Your task to perform on an android device: Go to Android settings Image 0: 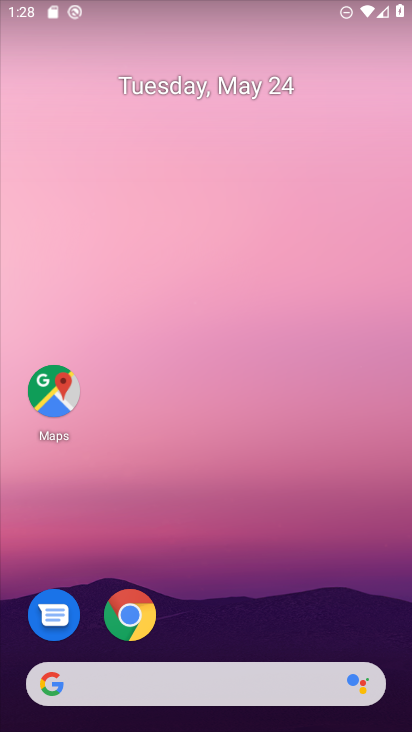
Step 0: drag from (181, 577) to (218, 22)
Your task to perform on an android device: Go to Android settings Image 1: 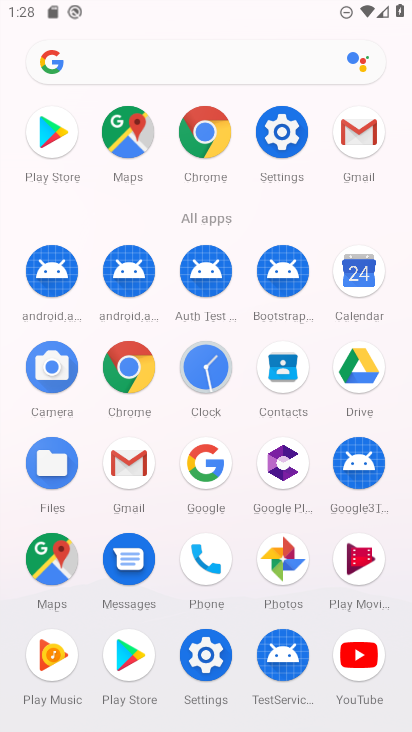
Step 1: click (279, 123)
Your task to perform on an android device: Go to Android settings Image 2: 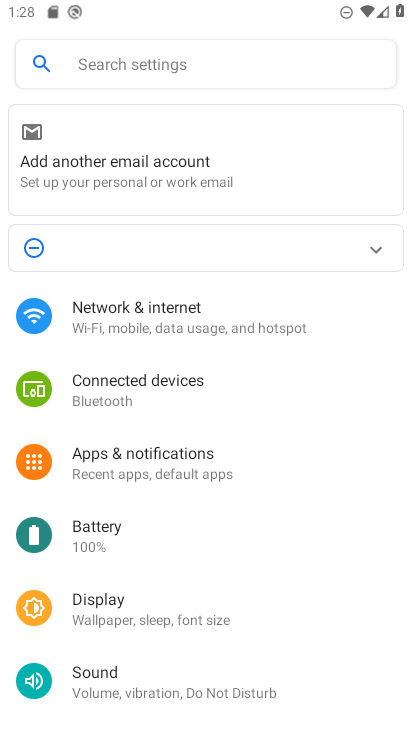
Step 2: drag from (224, 652) to (241, 44)
Your task to perform on an android device: Go to Android settings Image 3: 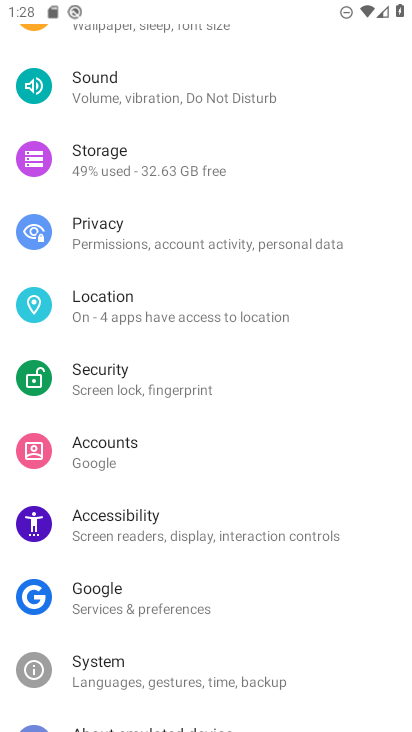
Step 3: drag from (113, 680) to (261, 46)
Your task to perform on an android device: Go to Android settings Image 4: 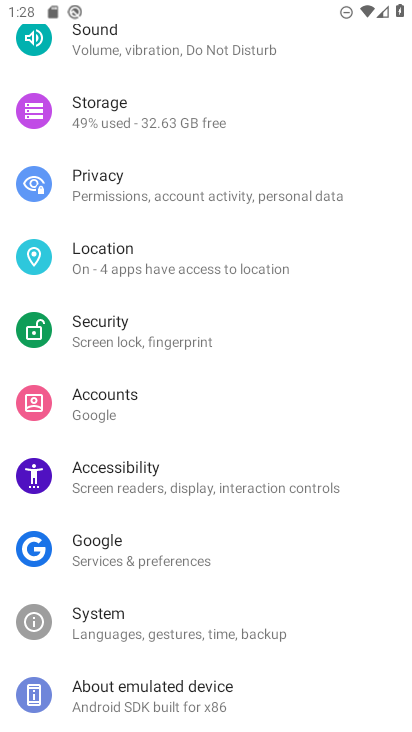
Step 4: click (104, 686)
Your task to perform on an android device: Go to Android settings Image 5: 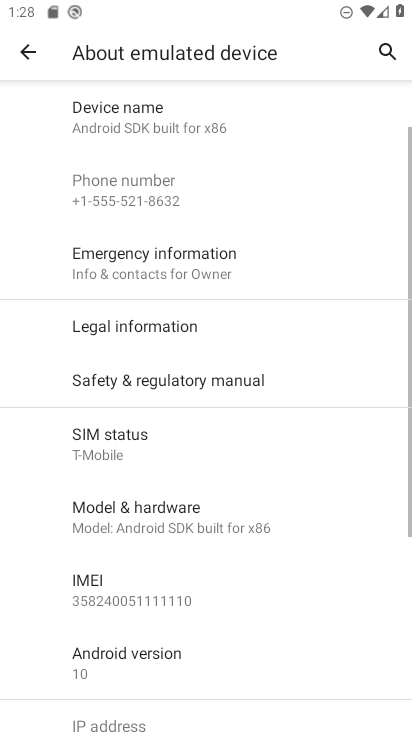
Step 5: click (138, 660)
Your task to perform on an android device: Go to Android settings Image 6: 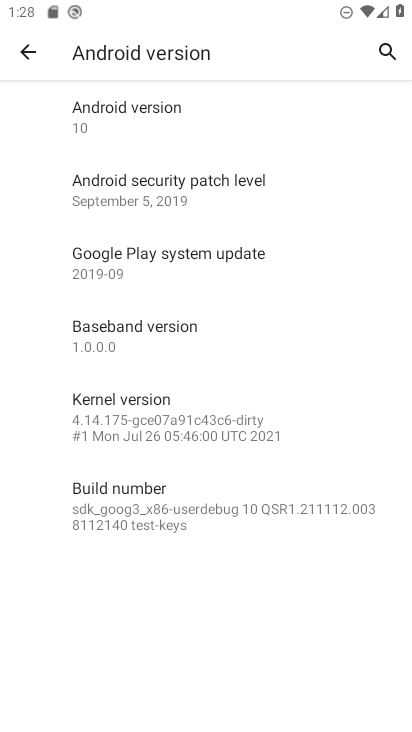
Step 6: task complete